Your task to perform on an android device: Open the web browser Image 0: 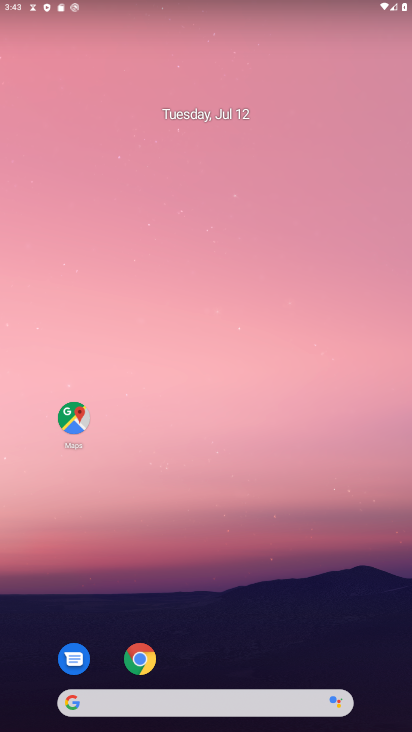
Step 0: press home button
Your task to perform on an android device: Open the web browser Image 1: 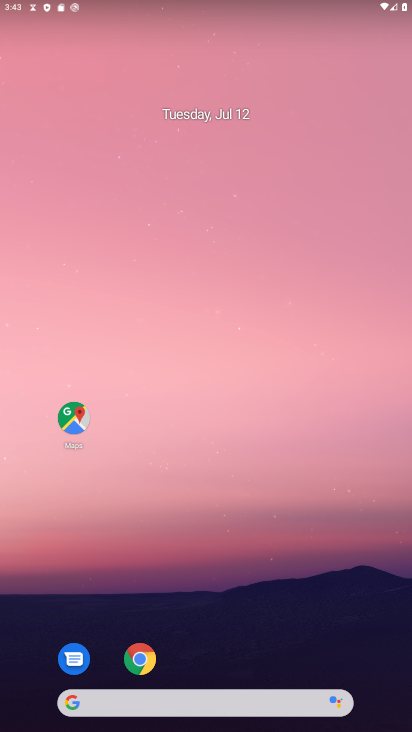
Step 1: click (231, 697)
Your task to perform on an android device: Open the web browser Image 2: 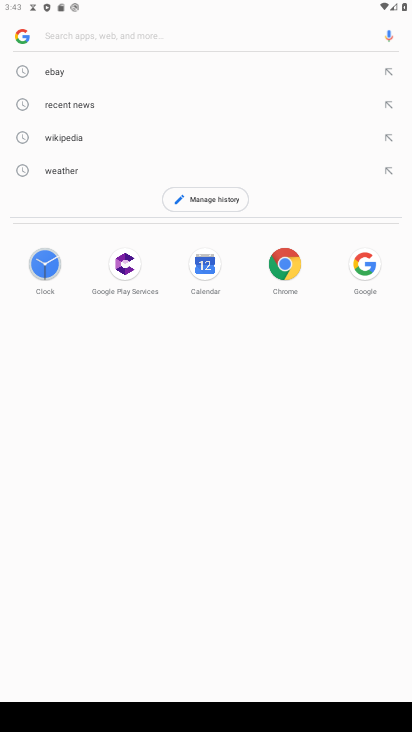
Step 2: click (27, 37)
Your task to perform on an android device: Open the web browser Image 3: 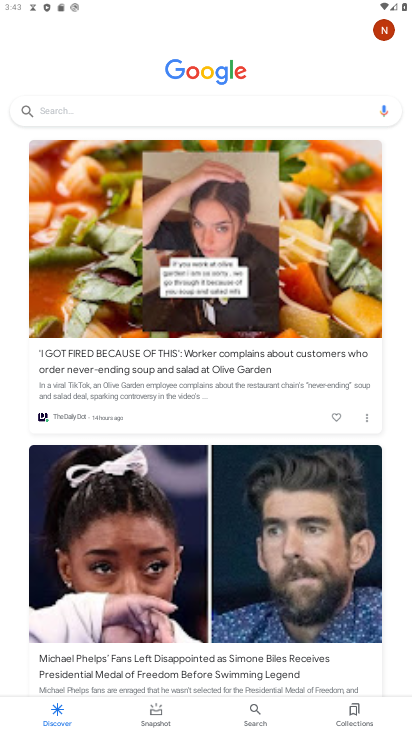
Step 3: task complete